Your task to perform on an android device: toggle wifi Image 0: 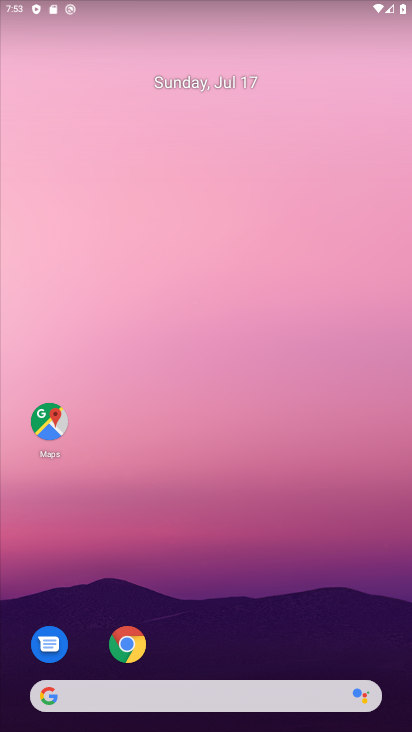
Step 0: drag from (256, 512) to (153, 90)
Your task to perform on an android device: toggle wifi Image 1: 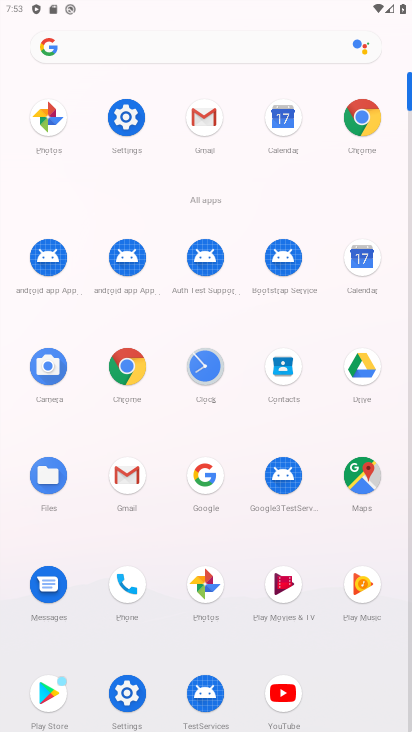
Step 1: click (122, 116)
Your task to perform on an android device: toggle wifi Image 2: 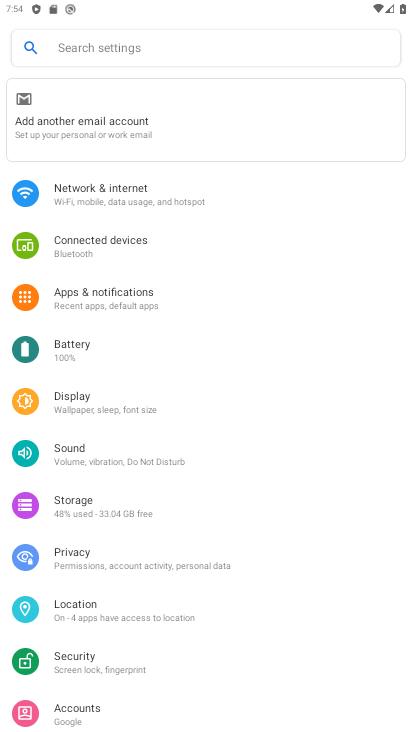
Step 2: click (106, 185)
Your task to perform on an android device: toggle wifi Image 3: 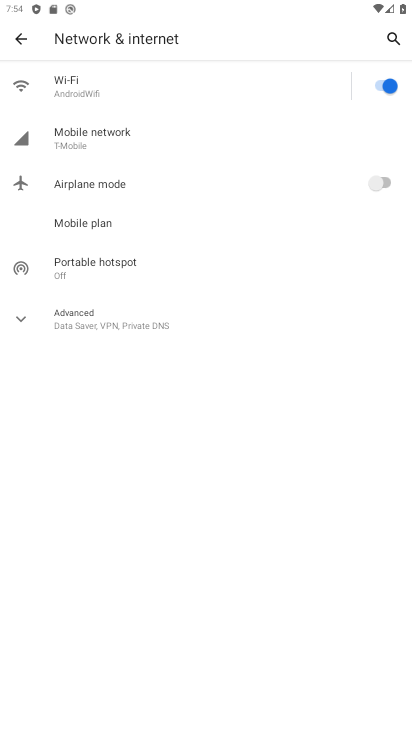
Step 3: click (394, 87)
Your task to perform on an android device: toggle wifi Image 4: 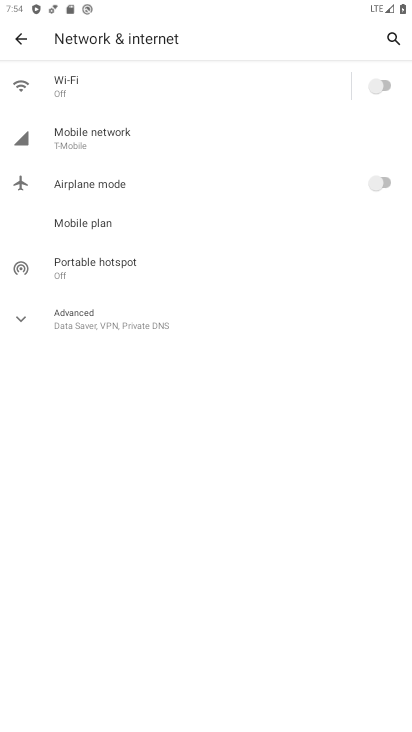
Step 4: task complete